Your task to perform on an android device: turn notification dots on Image 0: 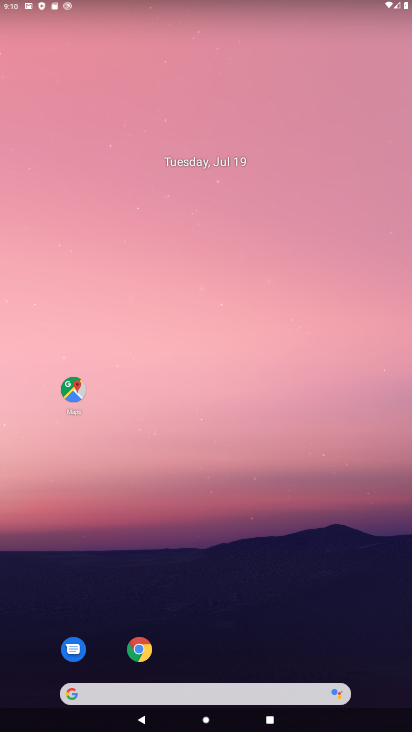
Step 0: drag from (293, 599) to (214, 75)
Your task to perform on an android device: turn notification dots on Image 1: 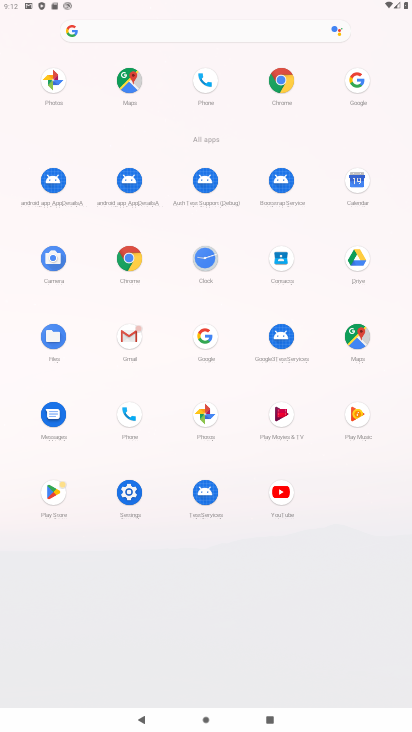
Step 1: click (137, 496)
Your task to perform on an android device: turn notification dots on Image 2: 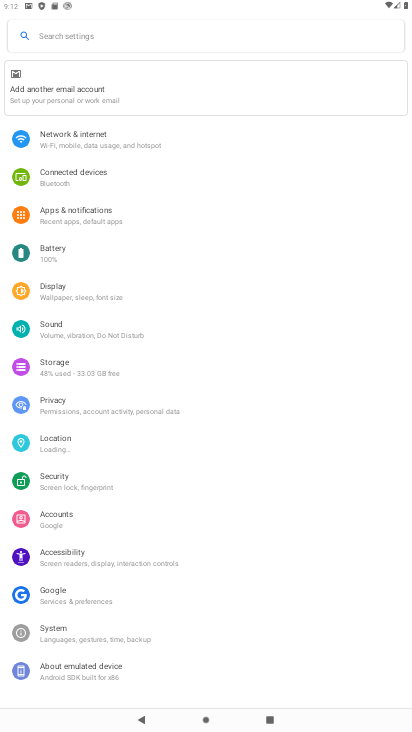
Step 2: click (82, 219)
Your task to perform on an android device: turn notification dots on Image 3: 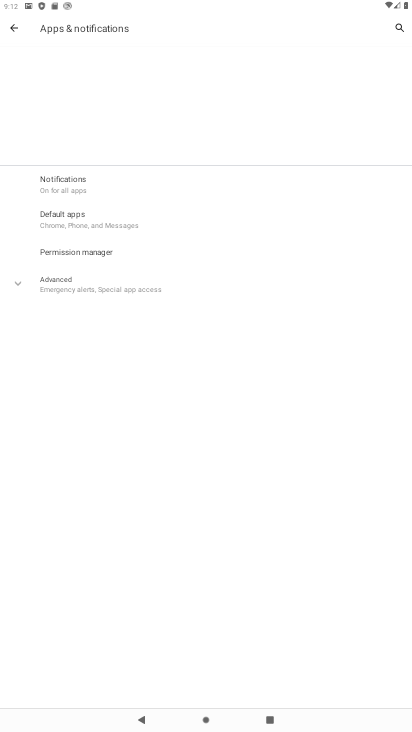
Step 3: click (76, 279)
Your task to perform on an android device: turn notification dots on Image 4: 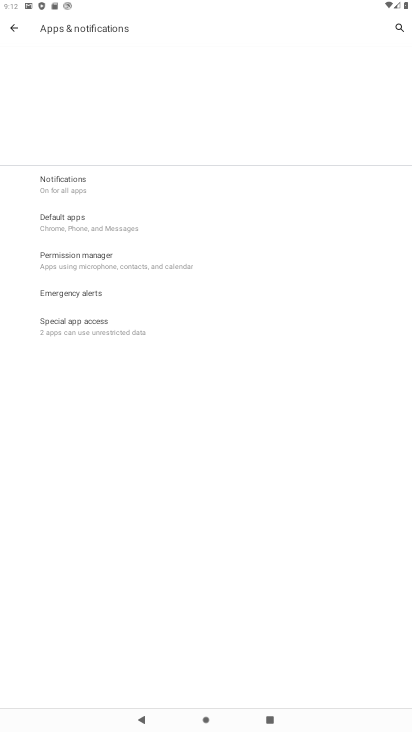
Step 4: click (90, 185)
Your task to perform on an android device: turn notification dots on Image 5: 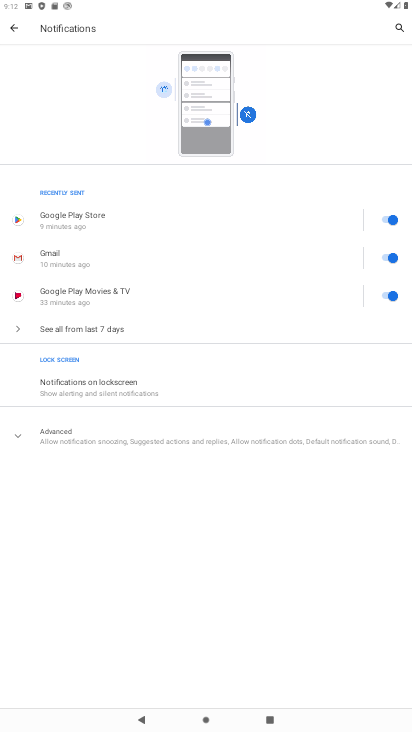
Step 5: click (80, 434)
Your task to perform on an android device: turn notification dots on Image 6: 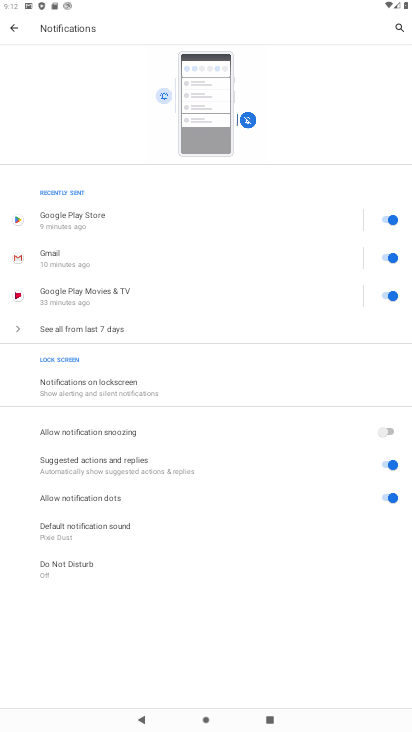
Step 6: task complete